Your task to perform on an android device: Turn off the flashlight Image 0: 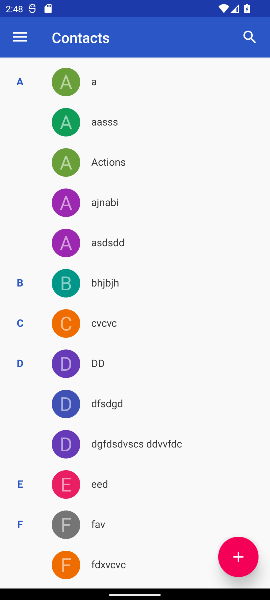
Step 0: task impossible